Your task to perform on an android device: turn vacation reply on in the gmail app Image 0: 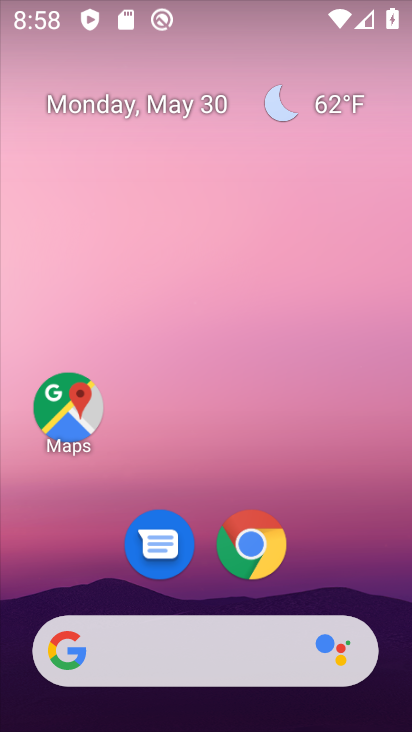
Step 0: drag from (342, 572) to (255, 222)
Your task to perform on an android device: turn vacation reply on in the gmail app Image 1: 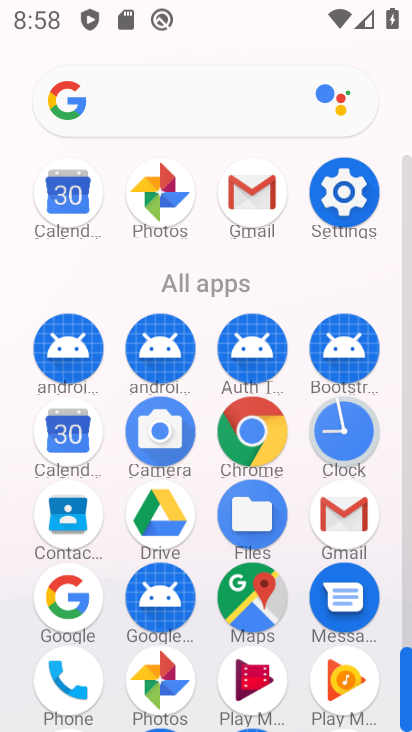
Step 1: click (252, 192)
Your task to perform on an android device: turn vacation reply on in the gmail app Image 2: 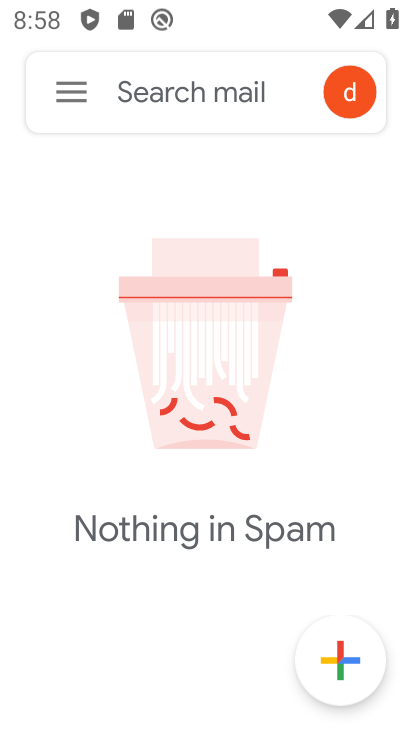
Step 2: click (75, 91)
Your task to perform on an android device: turn vacation reply on in the gmail app Image 3: 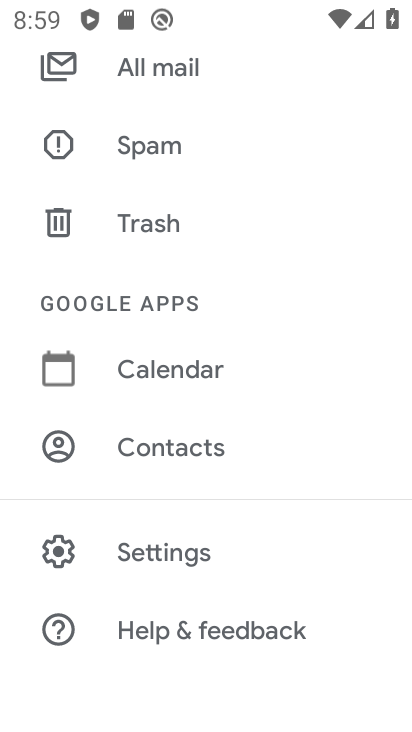
Step 3: click (169, 538)
Your task to perform on an android device: turn vacation reply on in the gmail app Image 4: 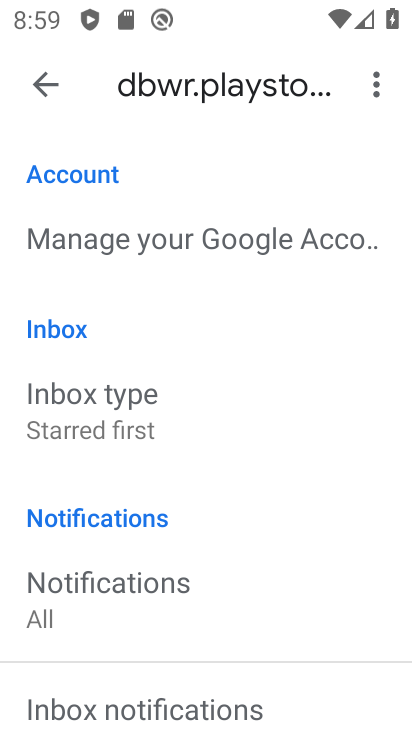
Step 4: drag from (177, 554) to (156, 429)
Your task to perform on an android device: turn vacation reply on in the gmail app Image 5: 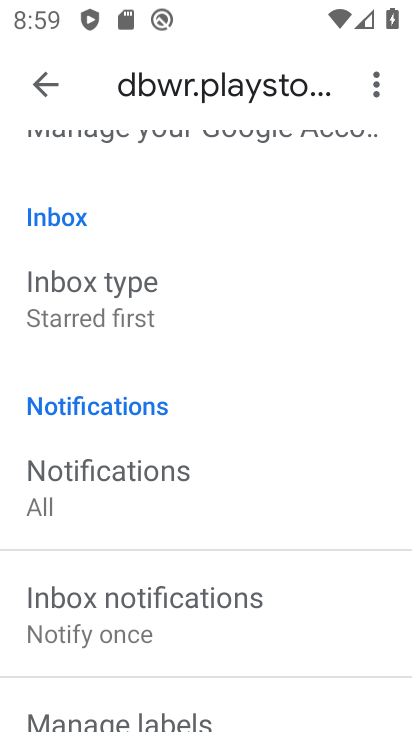
Step 5: drag from (145, 568) to (136, 423)
Your task to perform on an android device: turn vacation reply on in the gmail app Image 6: 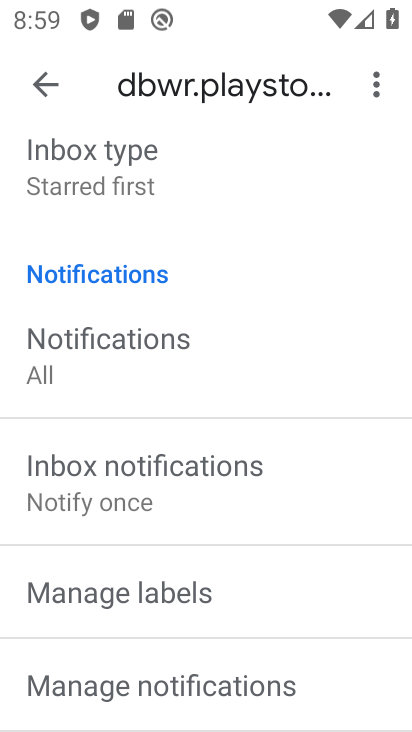
Step 6: drag from (141, 643) to (149, 525)
Your task to perform on an android device: turn vacation reply on in the gmail app Image 7: 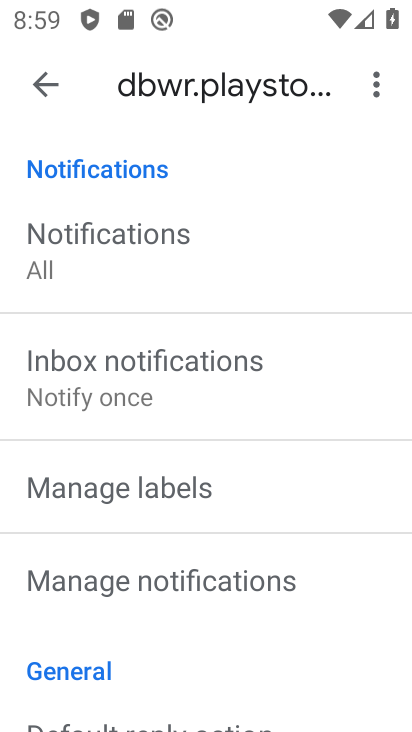
Step 7: drag from (180, 670) to (240, 508)
Your task to perform on an android device: turn vacation reply on in the gmail app Image 8: 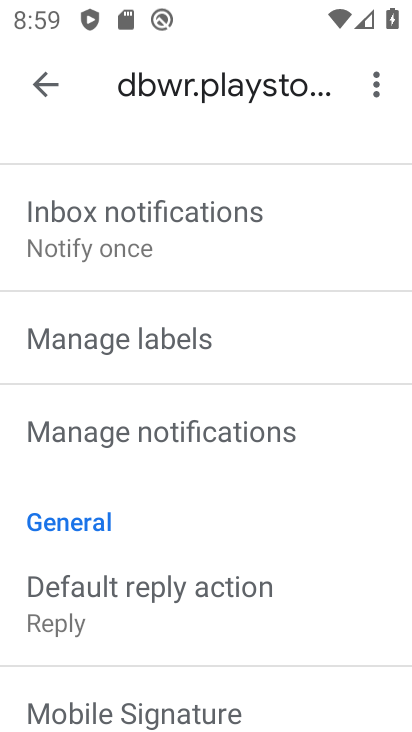
Step 8: drag from (182, 632) to (231, 489)
Your task to perform on an android device: turn vacation reply on in the gmail app Image 9: 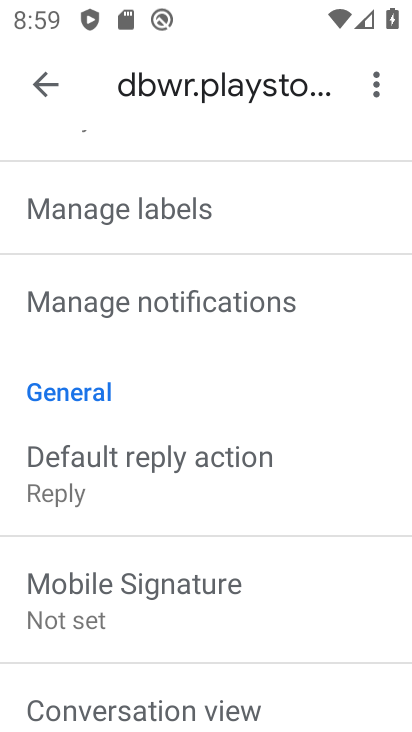
Step 9: drag from (201, 625) to (205, 456)
Your task to perform on an android device: turn vacation reply on in the gmail app Image 10: 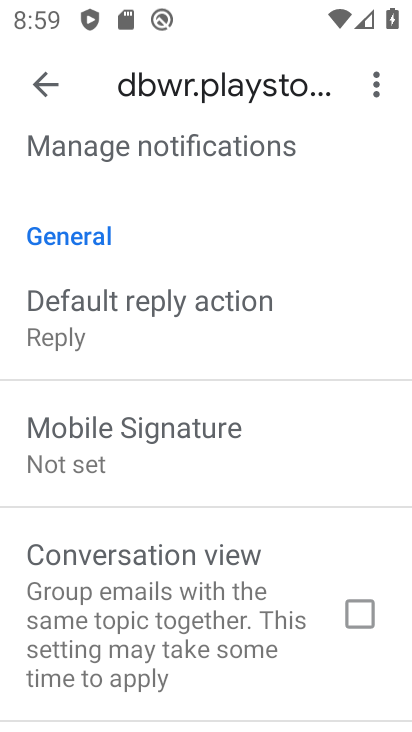
Step 10: drag from (162, 599) to (201, 421)
Your task to perform on an android device: turn vacation reply on in the gmail app Image 11: 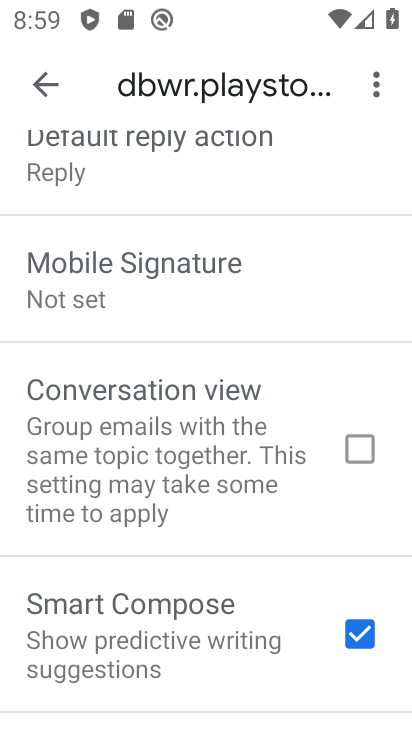
Step 11: drag from (153, 646) to (194, 492)
Your task to perform on an android device: turn vacation reply on in the gmail app Image 12: 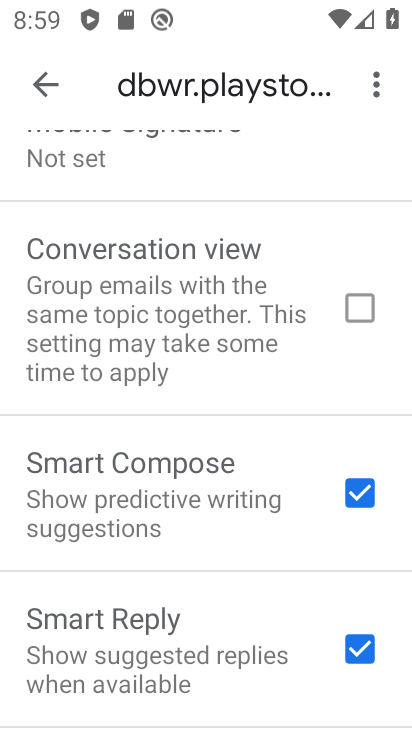
Step 12: drag from (146, 607) to (185, 487)
Your task to perform on an android device: turn vacation reply on in the gmail app Image 13: 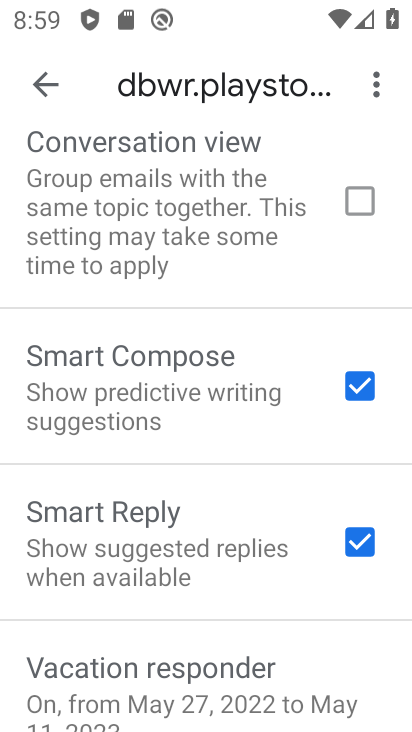
Step 13: drag from (190, 638) to (205, 526)
Your task to perform on an android device: turn vacation reply on in the gmail app Image 14: 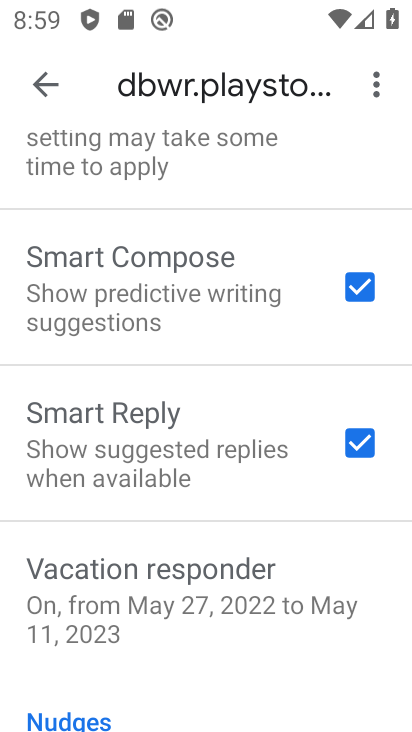
Step 14: click (168, 586)
Your task to perform on an android device: turn vacation reply on in the gmail app Image 15: 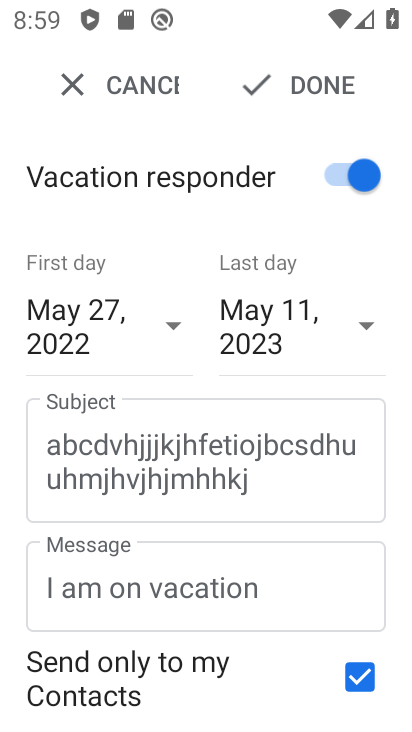
Step 15: task complete